Your task to perform on an android device: delete a single message in the gmail app Image 0: 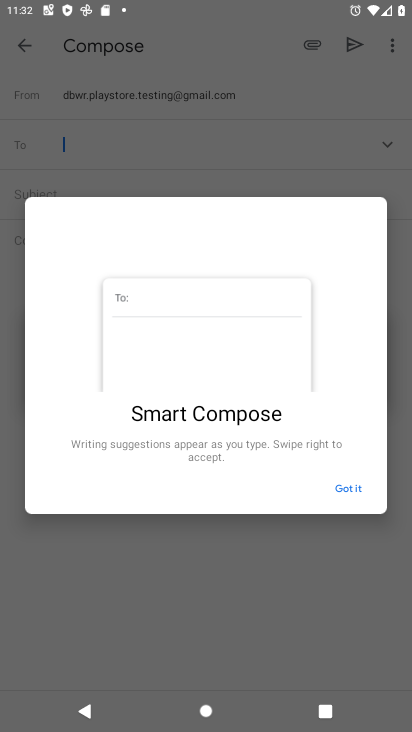
Step 0: press home button
Your task to perform on an android device: delete a single message in the gmail app Image 1: 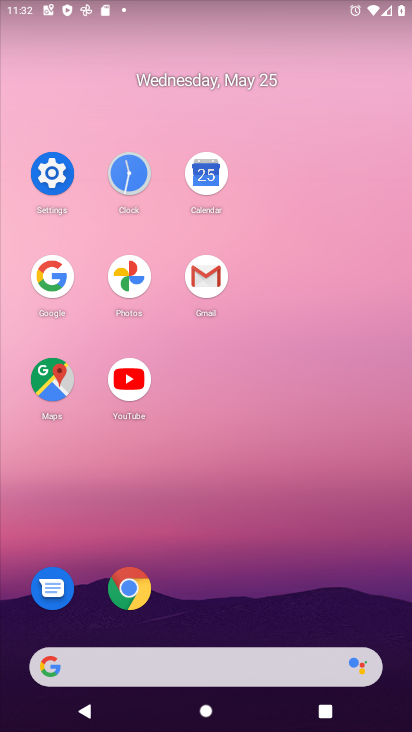
Step 1: click (214, 274)
Your task to perform on an android device: delete a single message in the gmail app Image 2: 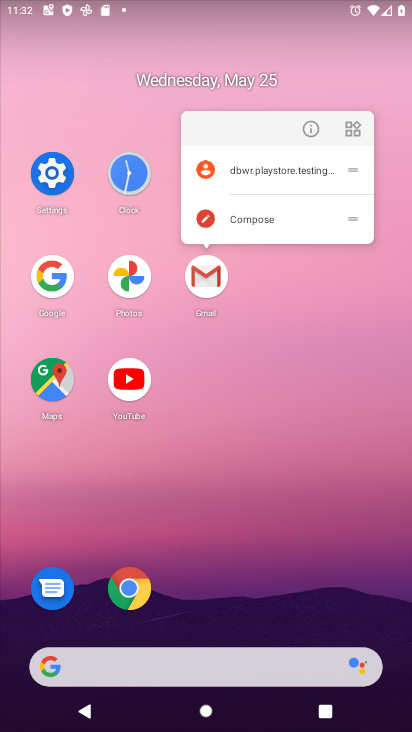
Step 2: click (214, 272)
Your task to perform on an android device: delete a single message in the gmail app Image 3: 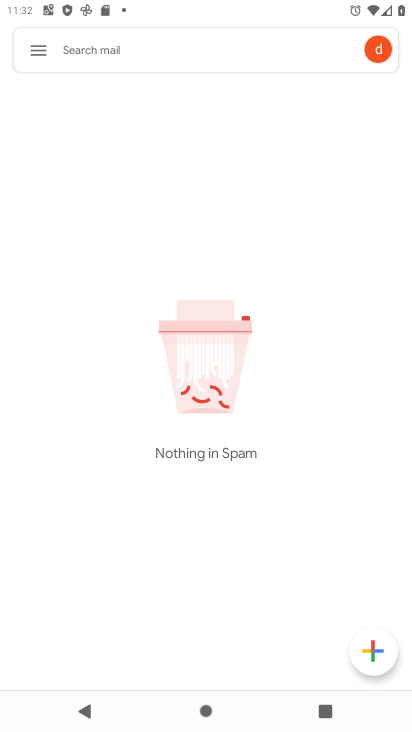
Step 3: click (52, 40)
Your task to perform on an android device: delete a single message in the gmail app Image 4: 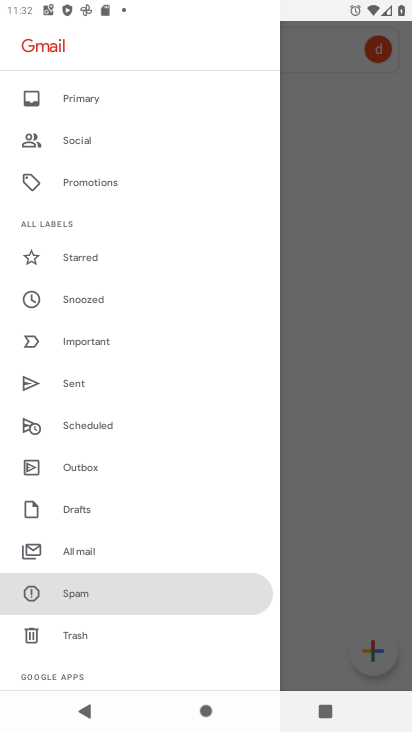
Step 4: click (153, 545)
Your task to perform on an android device: delete a single message in the gmail app Image 5: 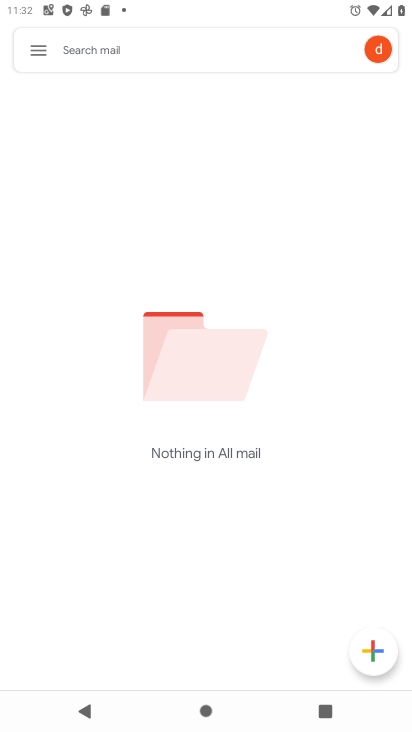
Step 5: task complete